Your task to perform on an android device: add a contact in the contacts app Image 0: 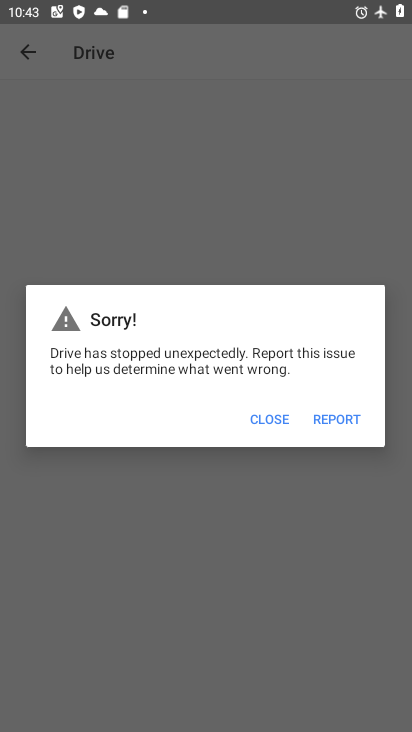
Step 0: press home button
Your task to perform on an android device: add a contact in the contacts app Image 1: 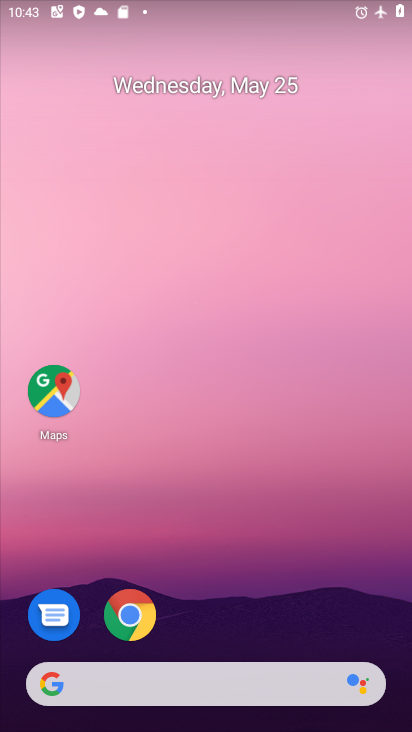
Step 1: drag from (213, 499) to (217, 64)
Your task to perform on an android device: add a contact in the contacts app Image 2: 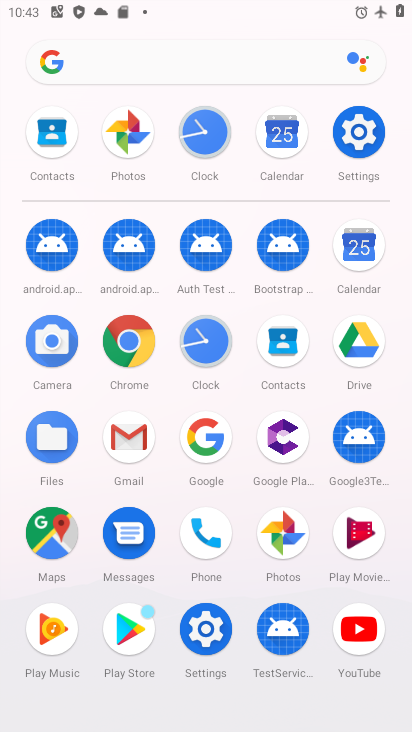
Step 2: click (280, 342)
Your task to perform on an android device: add a contact in the contacts app Image 3: 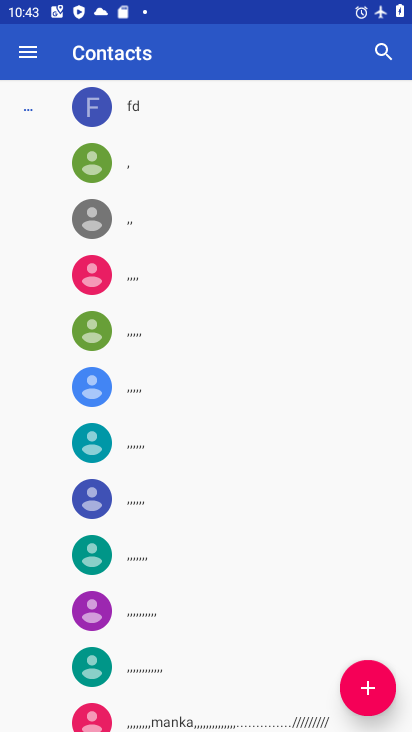
Step 3: click (370, 682)
Your task to perform on an android device: add a contact in the contacts app Image 4: 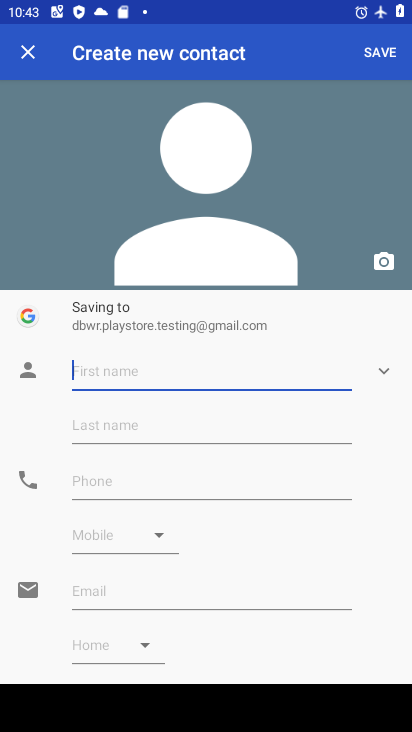
Step 4: type "Riddhi Sidhhi"
Your task to perform on an android device: add a contact in the contacts app Image 5: 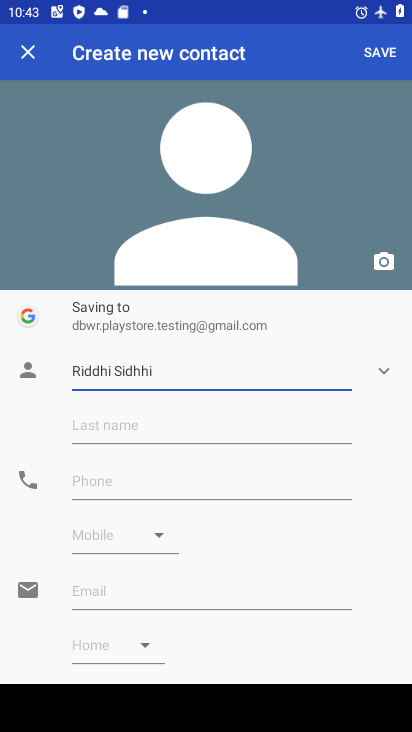
Step 5: click (250, 484)
Your task to perform on an android device: add a contact in the contacts app Image 6: 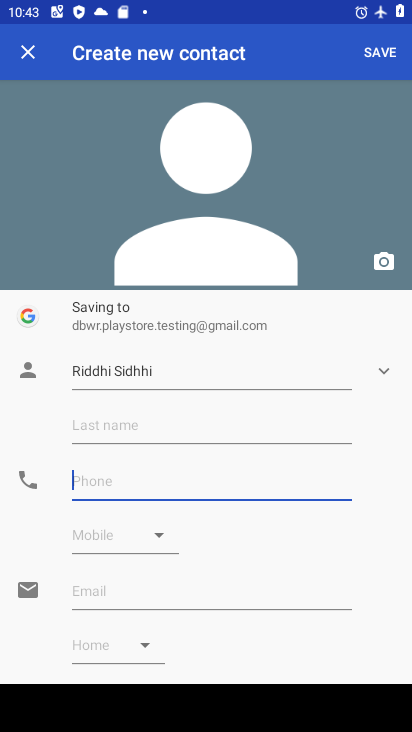
Step 6: type "0223334455"
Your task to perform on an android device: add a contact in the contacts app Image 7: 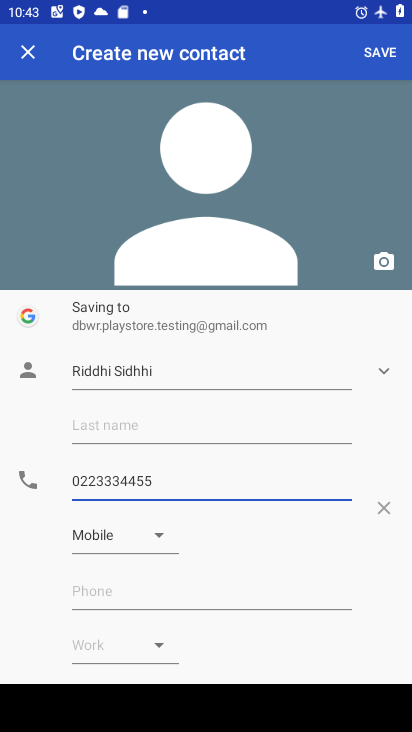
Step 7: click (371, 47)
Your task to perform on an android device: add a contact in the contacts app Image 8: 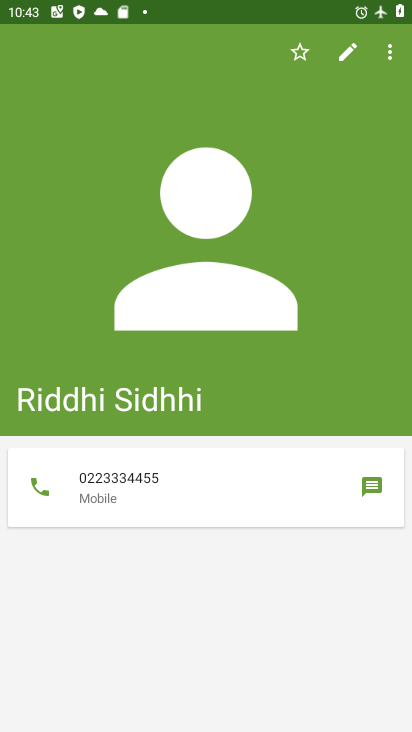
Step 8: task complete